Your task to perform on an android device: How big is a lion? Image 0: 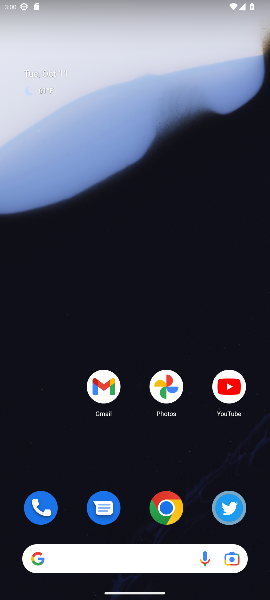
Step 0: click (169, 508)
Your task to perform on an android device: How big is a lion? Image 1: 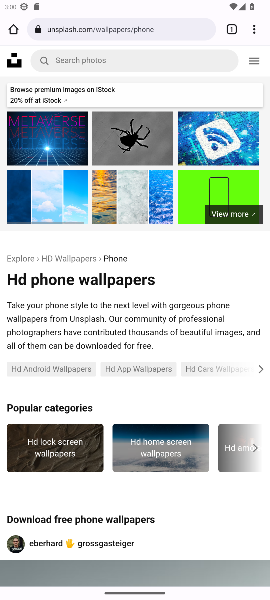
Step 1: click (119, 29)
Your task to perform on an android device: How big is a lion? Image 2: 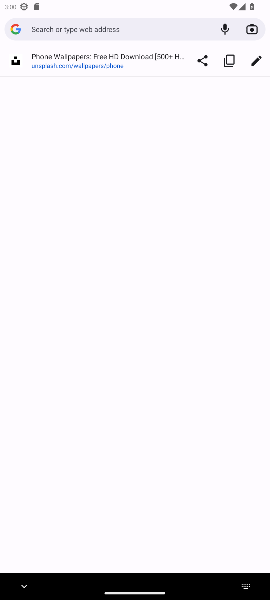
Step 2: type "How big is a lion"
Your task to perform on an android device: How big is a lion? Image 3: 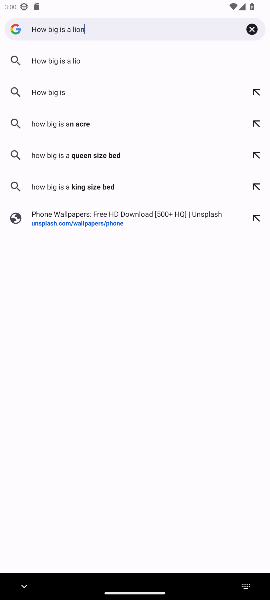
Step 3: type ""
Your task to perform on an android device: How big is a lion? Image 4: 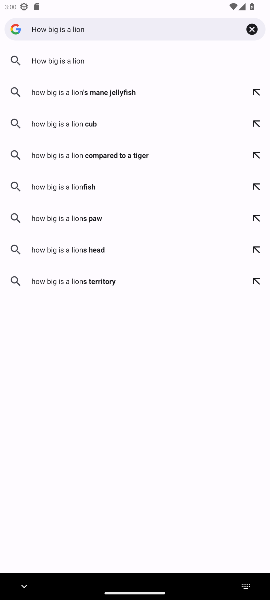
Step 4: click (41, 62)
Your task to perform on an android device: How big is a lion? Image 5: 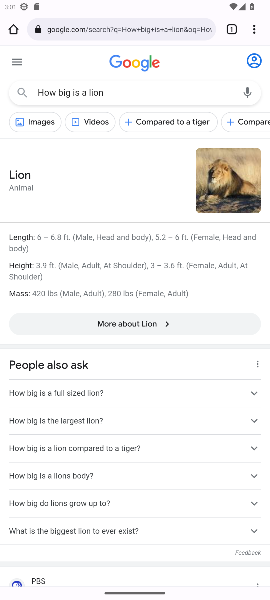
Step 5: click (145, 324)
Your task to perform on an android device: How big is a lion? Image 6: 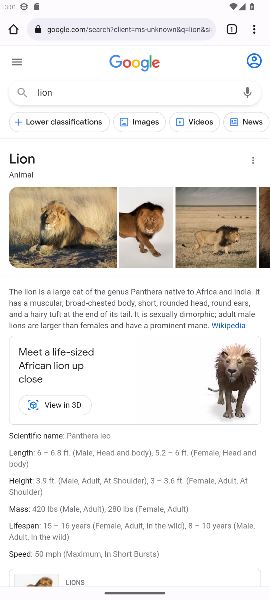
Step 6: task complete